Your task to perform on an android device: change keyboard looks Image 0: 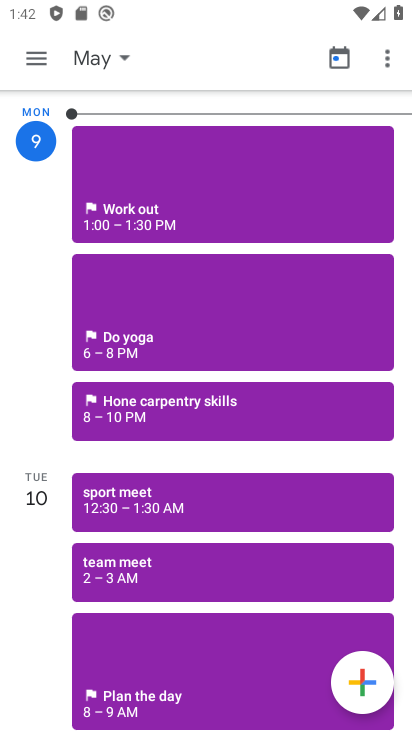
Step 0: drag from (260, 540) to (257, 69)
Your task to perform on an android device: change keyboard looks Image 1: 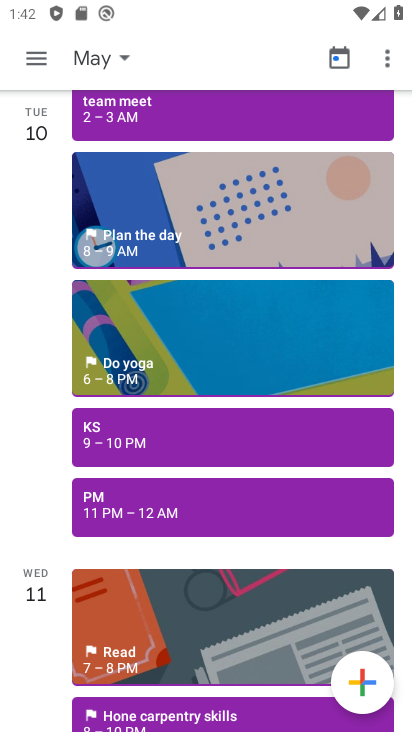
Step 1: press back button
Your task to perform on an android device: change keyboard looks Image 2: 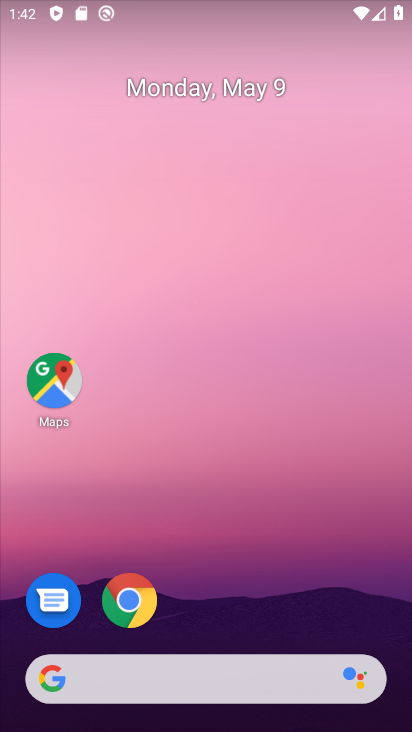
Step 2: drag from (247, 550) to (214, 0)
Your task to perform on an android device: change keyboard looks Image 3: 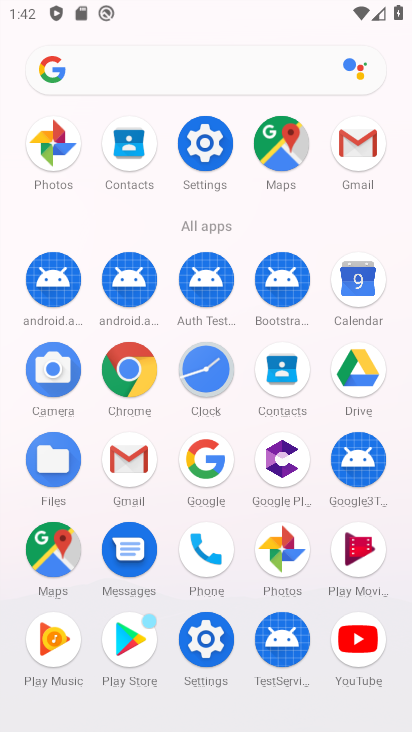
Step 3: drag from (10, 597) to (10, 213)
Your task to perform on an android device: change keyboard looks Image 4: 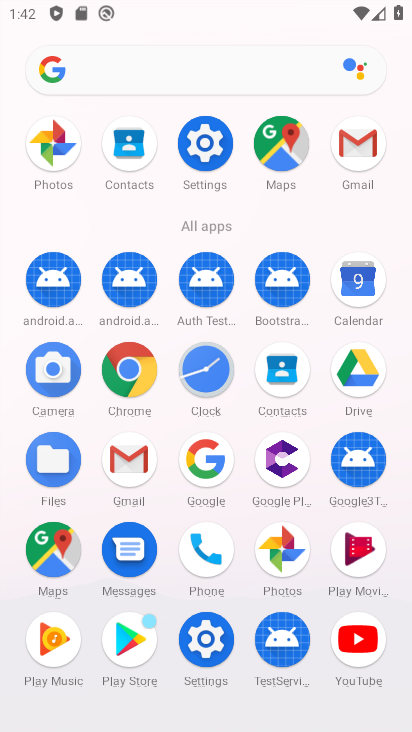
Step 4: drag from (3, 566) to (3, 255)
Your task to perform on an android device: change keyboard looks Image 5: 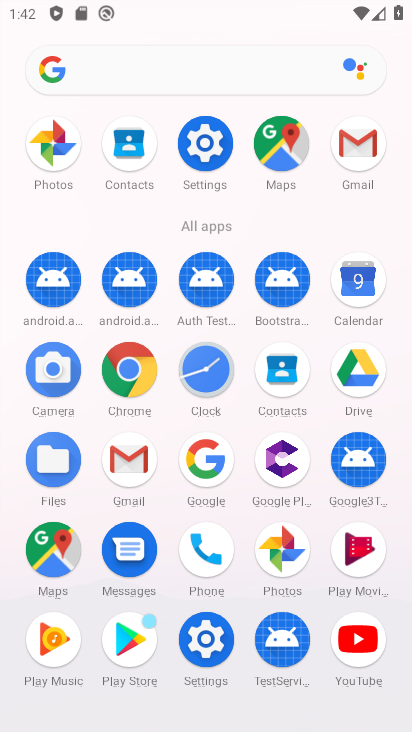
Step 5: click (202, 644)
Your task to perform on an android device: change keyboard looks Image 6: 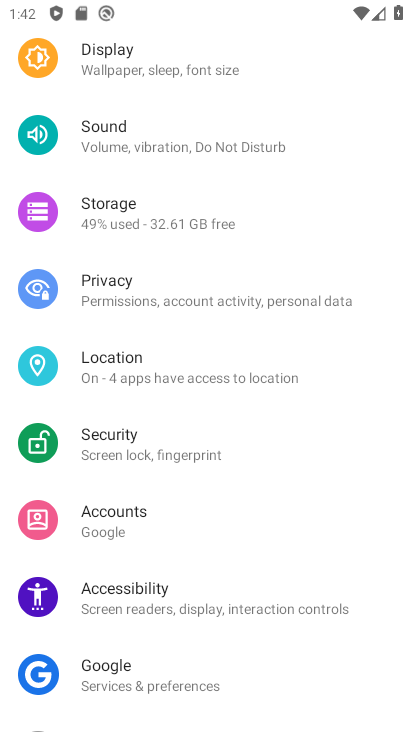
Step 6: drag from (241, 100) to (290, 90)
Your task to perform on an android device: change keyboard looks Image 7: 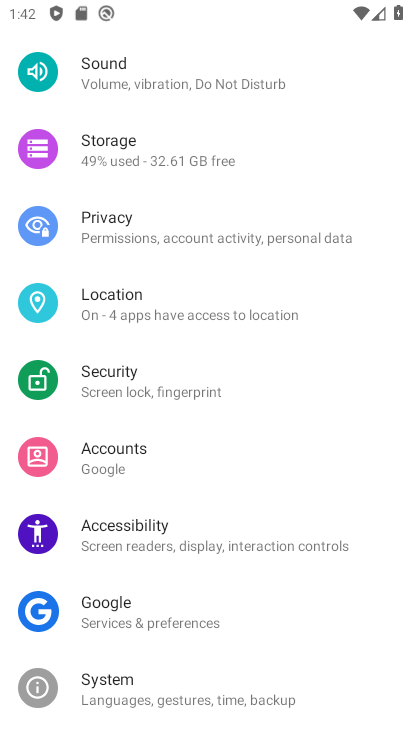
Step 7: drag from (312, 567) to (302, 120)
Your task to perform on an android device: change keyboard looks Image 8: 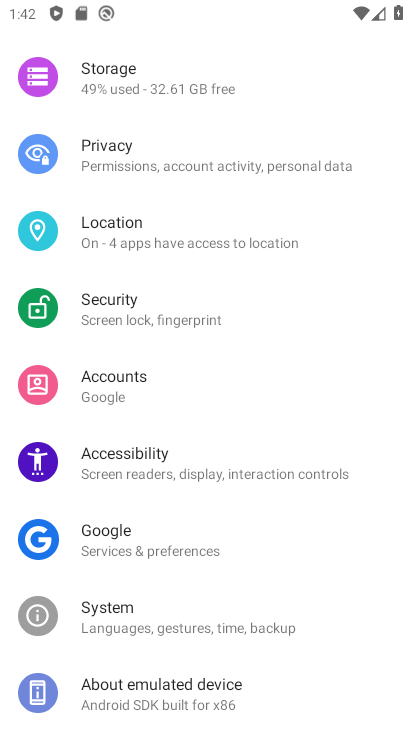
Step 8: click (139, 688)
Your task to perform on an android device: change keyboard looks Image 9: 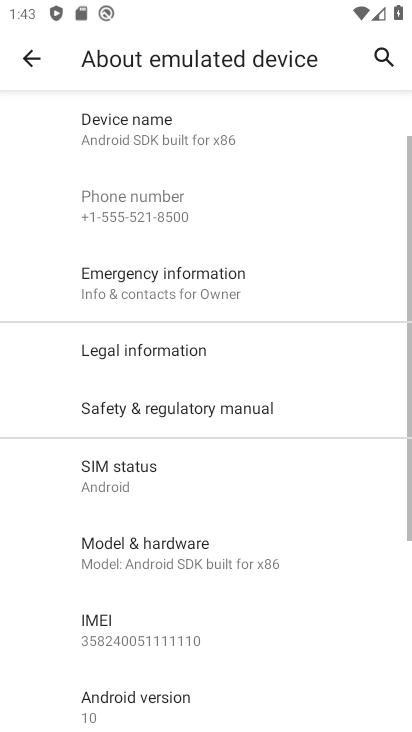
Step 9: drag from (270, 534) to (285, 315)
Your task to perform on an android device: change keyboard looks Image 10: 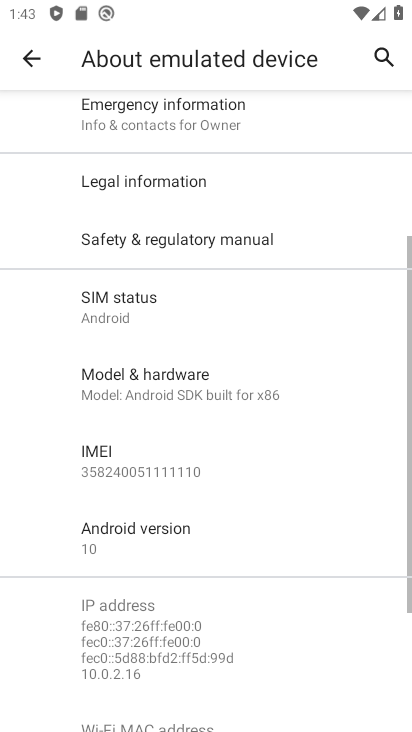
Step 10: click (46, 58)
Your task to perform on an android device: change keyboard looks Image 11: 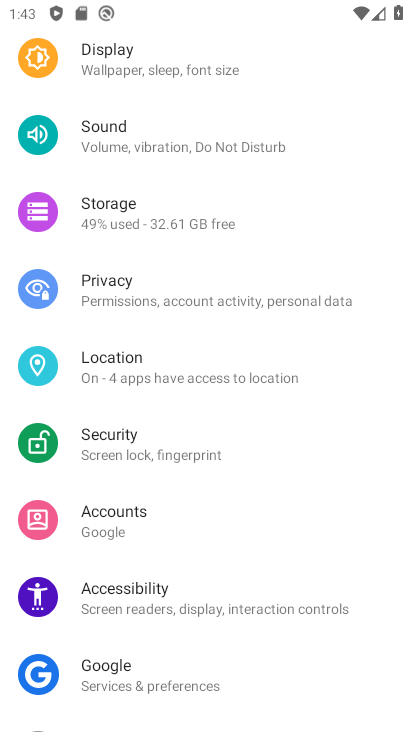
Step 11: drag from (214, 635) to (280, 180)
Your task to perform on an android device: change keyboard looks Image 12: 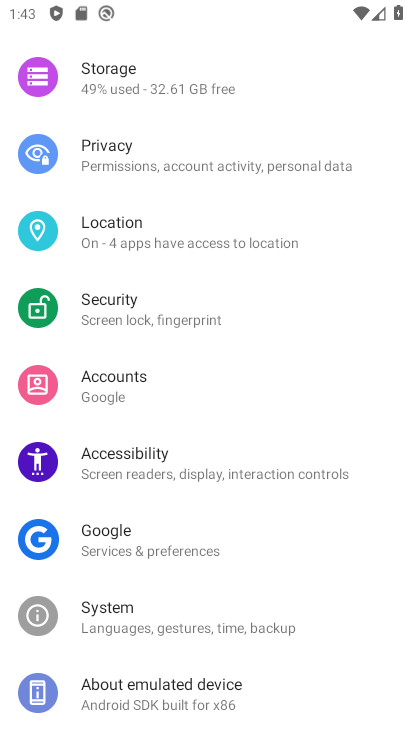
Step 12: click (175, 607)
Your task to perform on an android device: change keyboard looks Image 13: 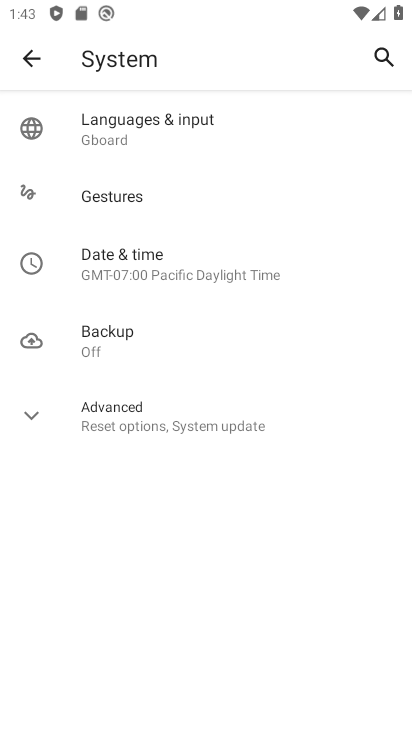
Step 13: click (178, 127)
Your task to perform on an android device: change keyboard looks Image 14: 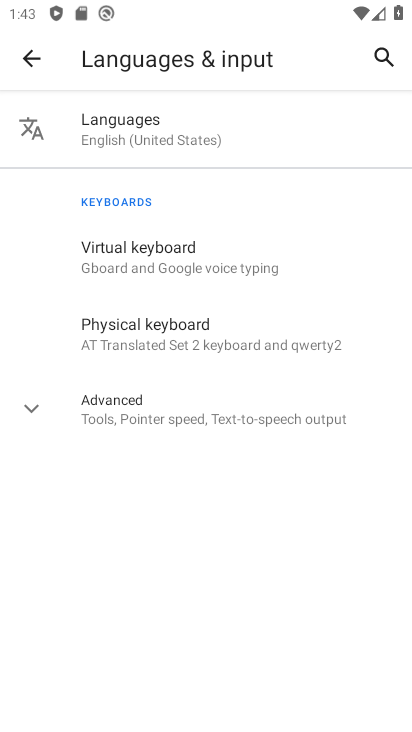
Step 14: click (126, 438)
Your task to perform on an android device: change keyboard looks Image 15: 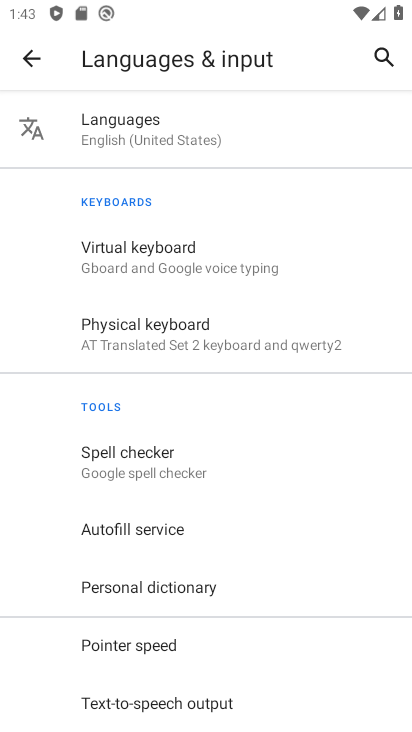
Step 15: click (178, 256)
Your task to perform on an android device: change keyboard looks Image 16: 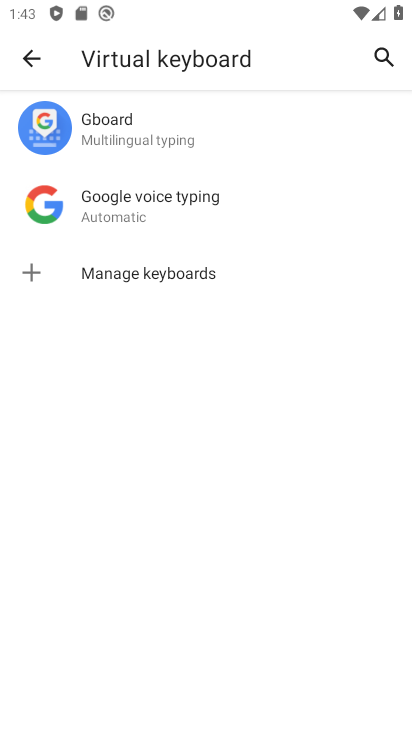
Step 16: click (174, 143)
Your task to perform on an android device: change keyboard looks Image 17: 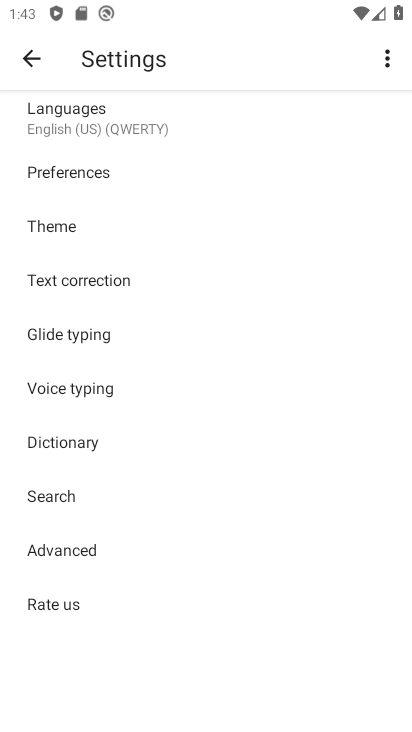
Step 17: click (112, 228)
Your task to perform on an android device: change keyboard looks Image 18: 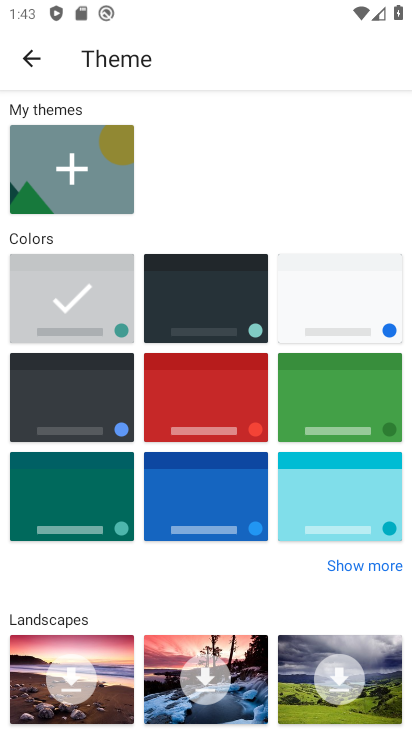
Step 18: click (222, 525)
Your task to perform on an android device: change keyboard looks Image 19: 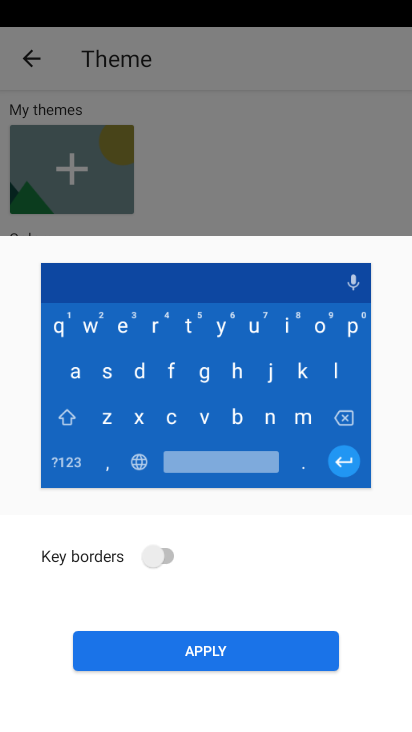
Step 19: click (210, 657)
Your task to perform on an android device: change keyboard looks Image 20: 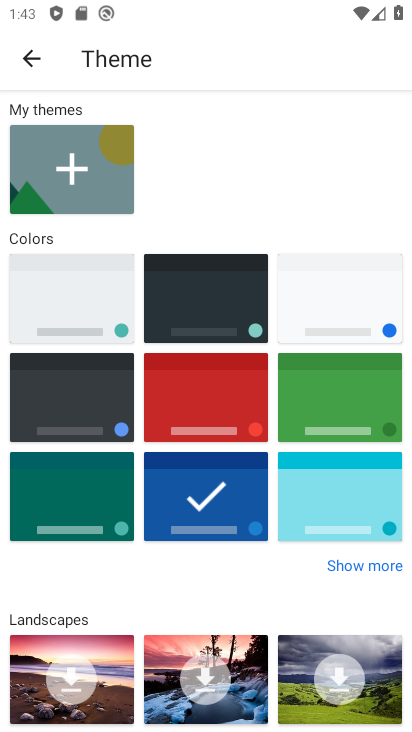
Step 20: task complete